Your task to perform on an android device: Is it going to rain this weekend? Image 0: 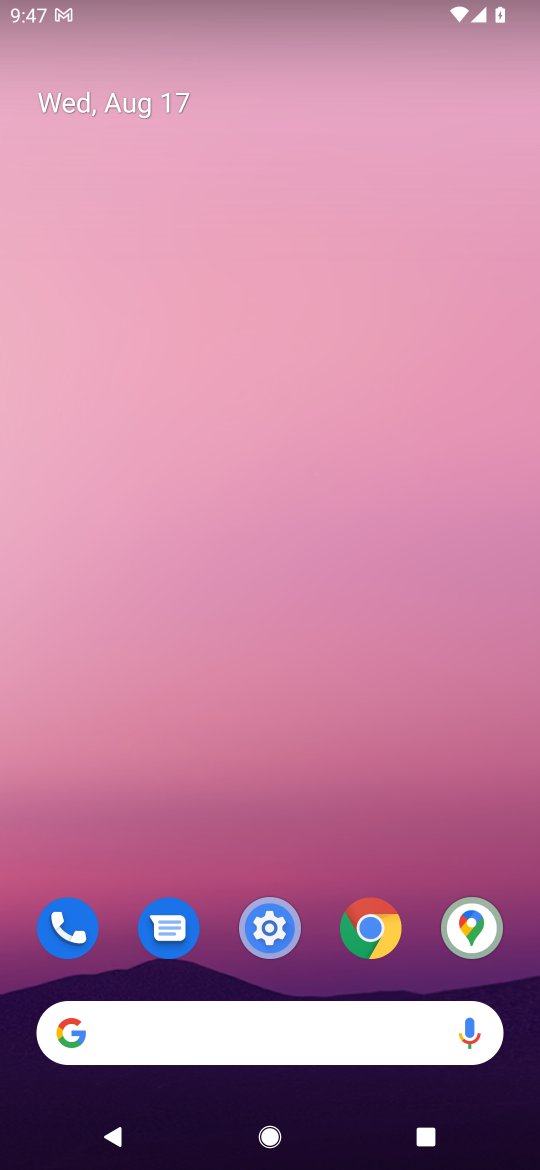
Step 0: click (313, 1017)
Your task to perform on an android device: Is it going to rain this weekend? Image 1: 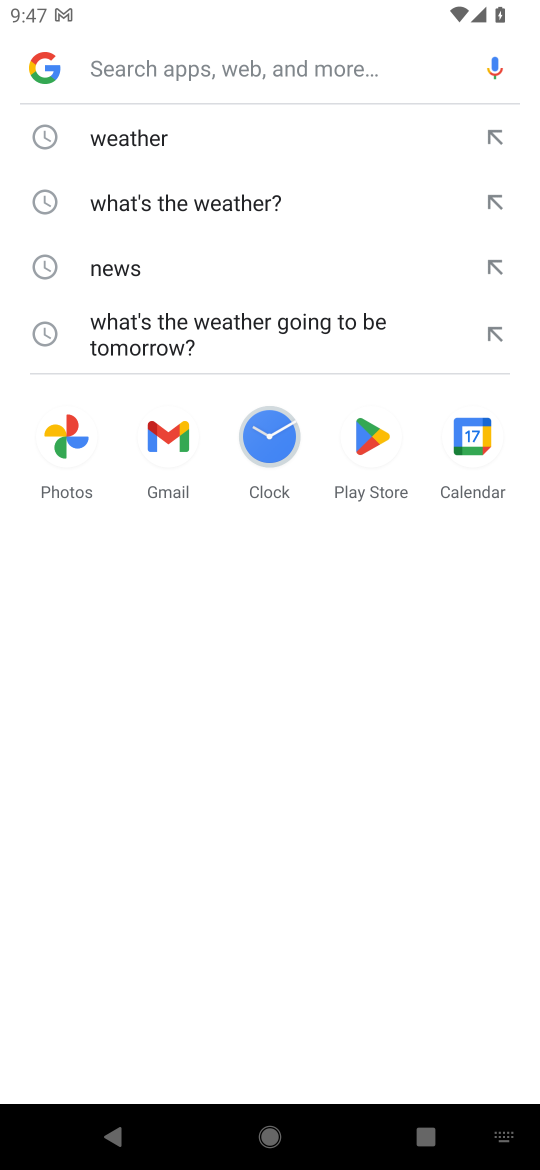
Step 1: click (196, 143)
Your task to perform on an android device: Is it going to rain this weekend? Image 2: 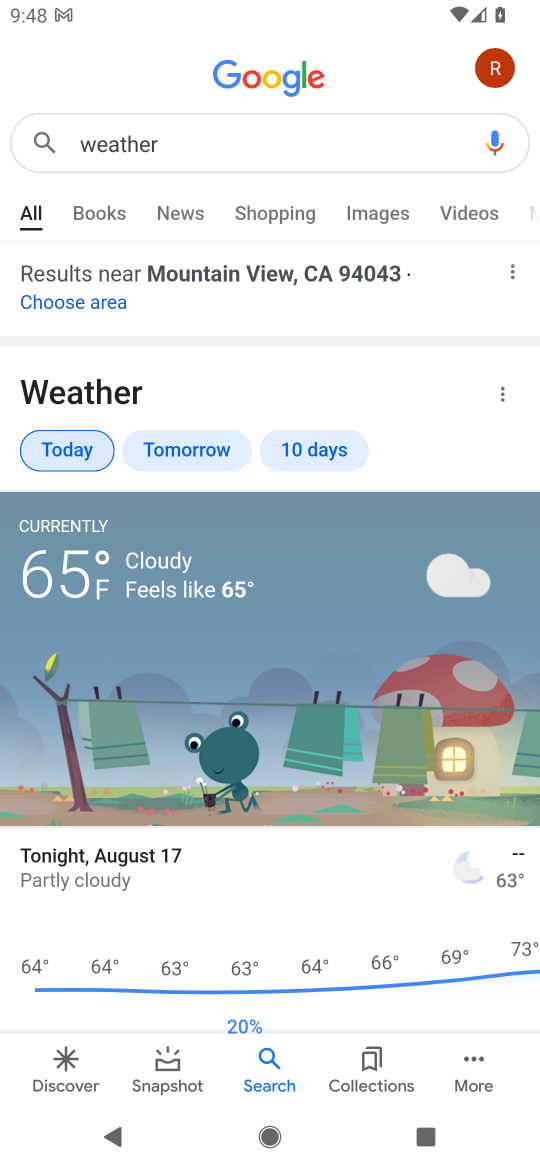
Step 2: click (303, 462)
Your task to perform on an android device: Is it going to rain this weekend? Image 3: 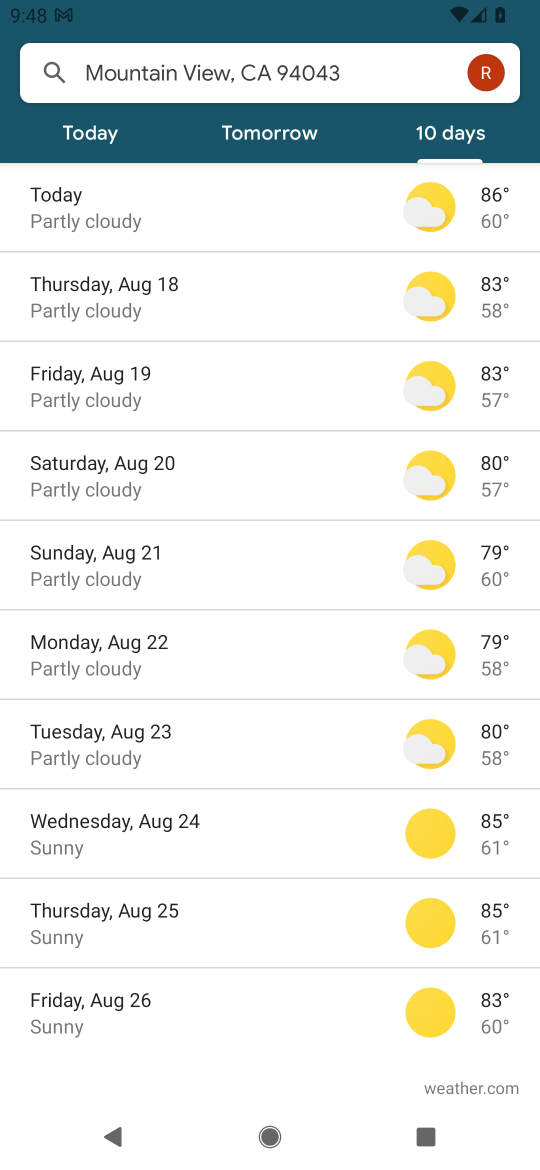
Step 3: click (149, 462)
Your task to perform on an android device: Is it going to rain this weekend? Image 4: 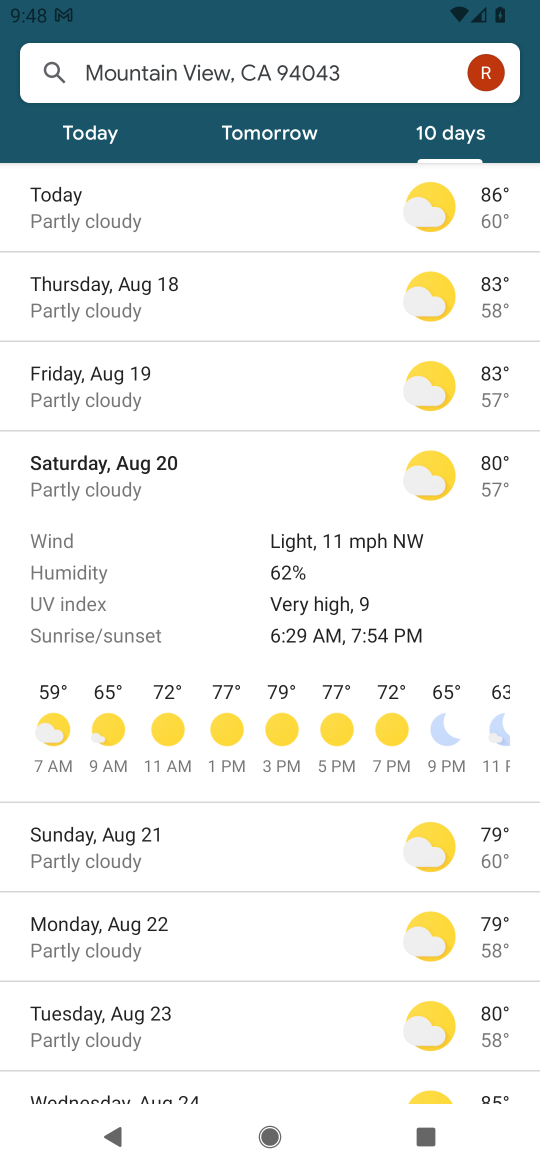
Step 4: task complete